Your task to perform on an android device: see creations saved in the google photos Image 0: 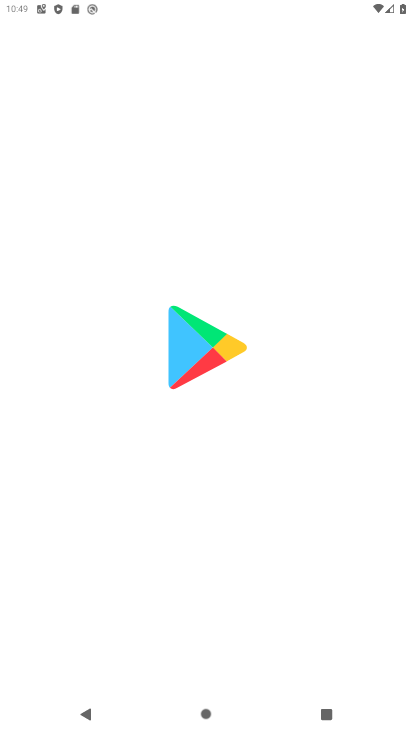
Step 0: press home button
Your task to perform on an android device: see creations saved in the google photos Image 1: 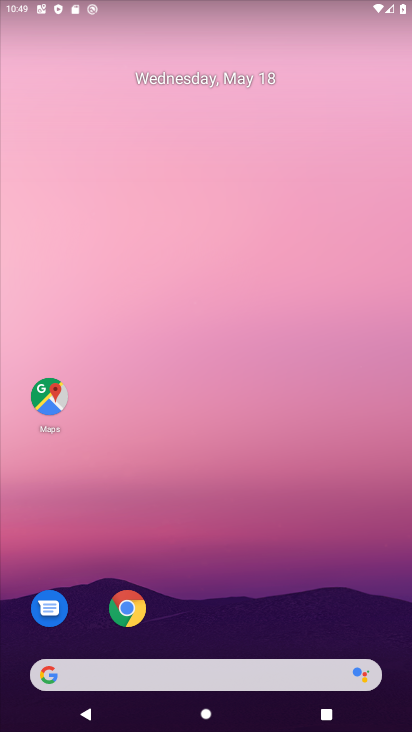
Step 1: drag from (273, 614) to (307, 197)
Your task to perform on an android device: see creations saved in the google photos Image 2: 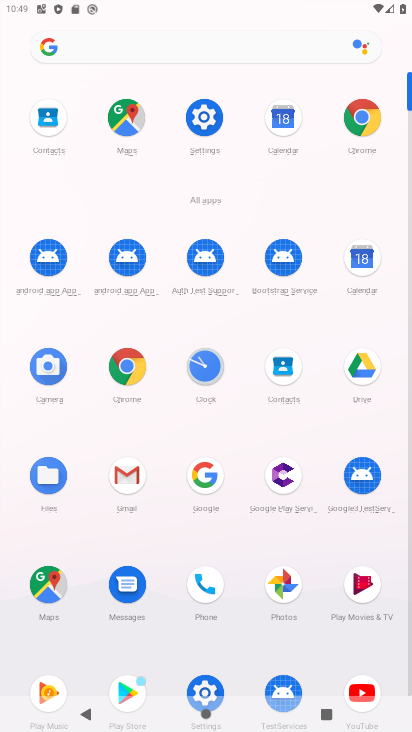
Step 2: click (285, 610)
Your task to perform on an android device: see creations saved in the google photos Image 3: 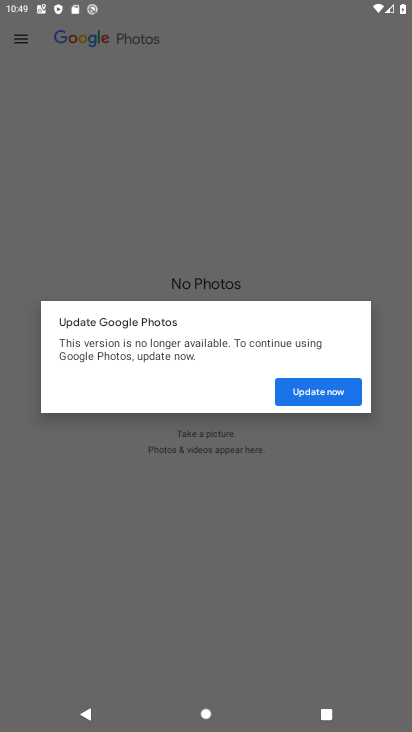
Step 3: click (321, 386)
Your task to perform on an android device: see creations saved in the google photos Image 4: 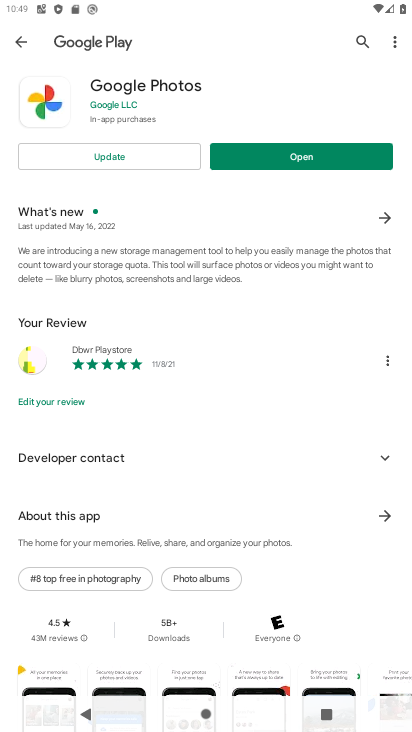
Step 4: click (133, 155)
Your task to perform on an android device: see creations saved in the google photos Image 5: 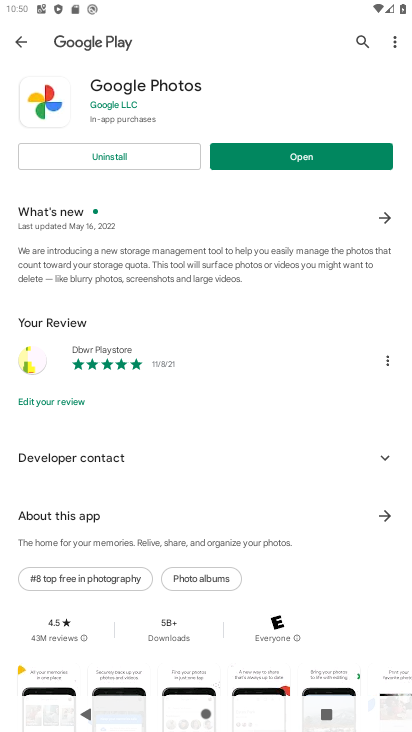
Step 5: click (364, 156)
Your task to perform on an android device: see creations saved in the google photos Image 6: 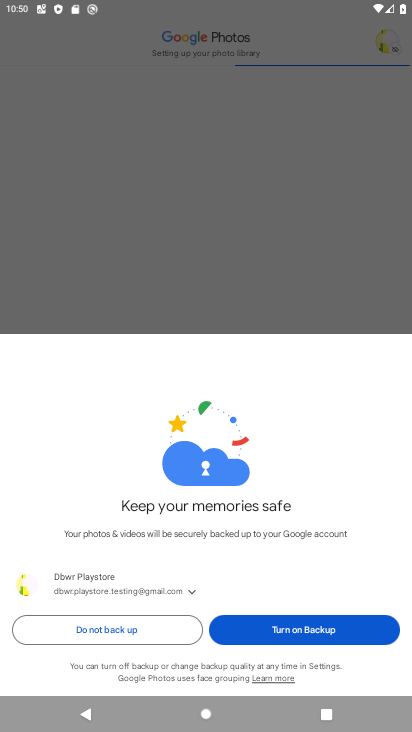
Step 6: click (338, 627)
Your task to perform on an android device: see creations saved in the google photos Image 7: 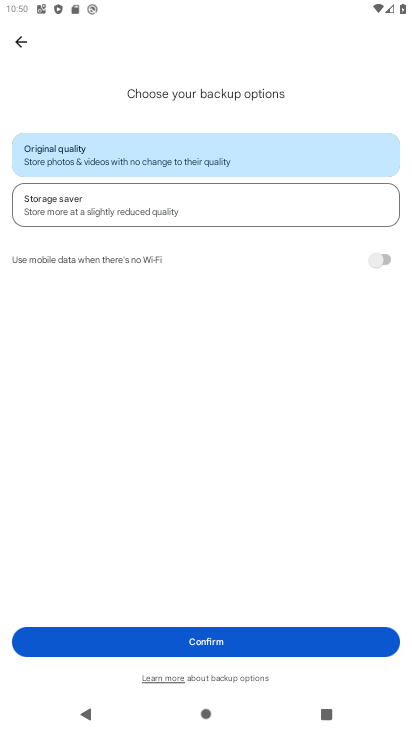
Step 7: click (263, 644)
Your task to perform on an android device: see creations saved in the google photos Image 8: 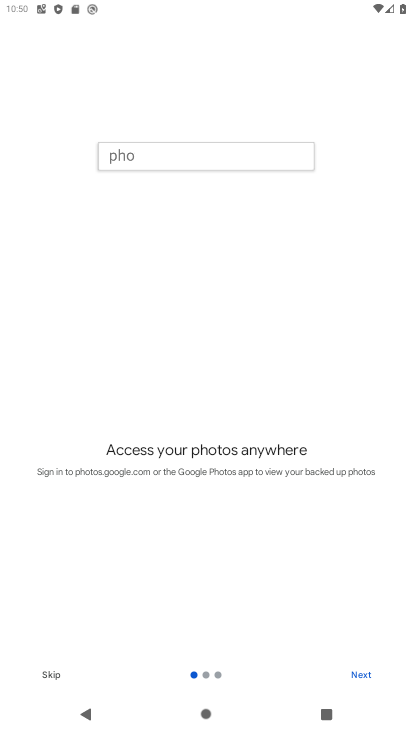
Step 8: click (263, 644)
Your task to perform on an android device: see creations saved in the google photos Image 9: 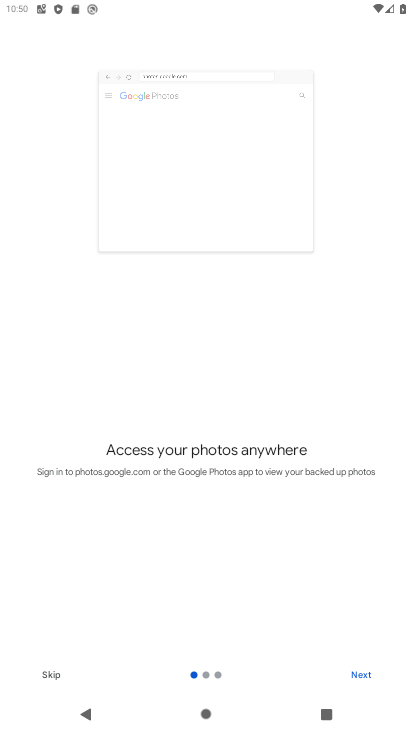
Step 9: click (365, 671)
Your task to perform on an android device: see creations saved in the google photos Image 10: 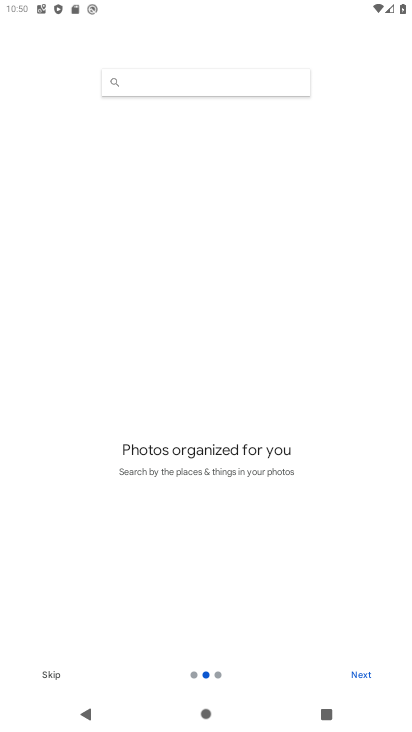
Step 10: click (365, 671)
Your task to perform on an android device: see creations saved in the google photos Image 11: 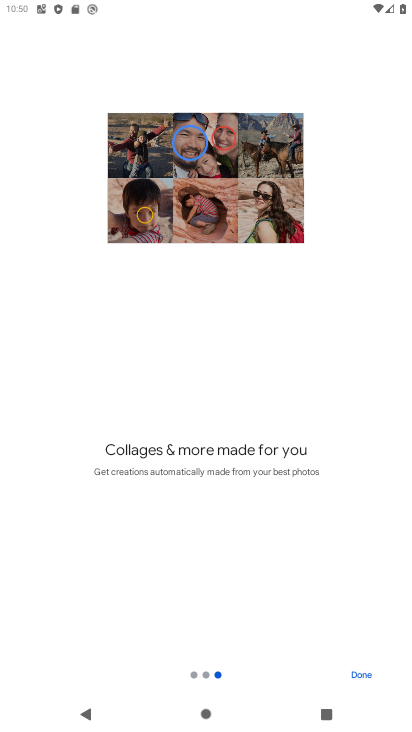
Step 11: click (365, 671)
Your task to perform on an android device: see creations saved in the google photos Image 12: 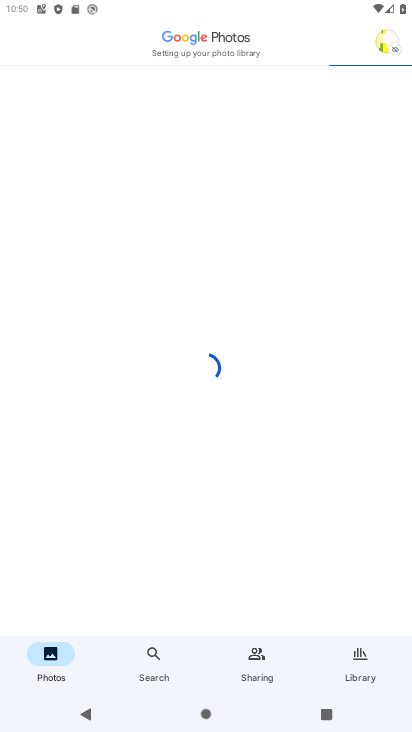
Step 12: click (365, 671)
Your task to perform on an android device: see creations saved in the google photos Image 13: 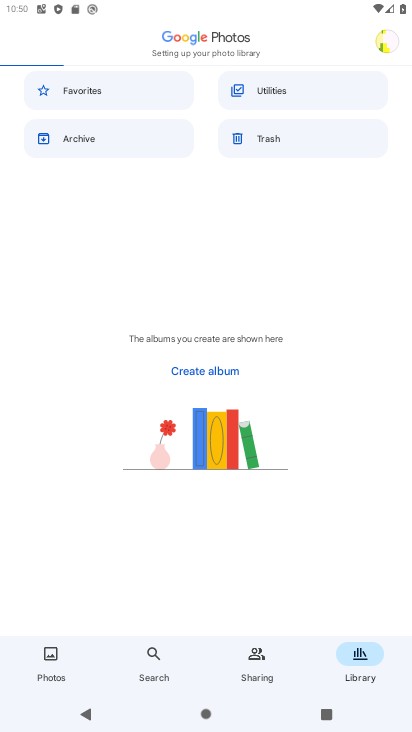
Step 13: click (158, 668)
Your task to perform on an android device: see creations saved in the google photos Image 14: 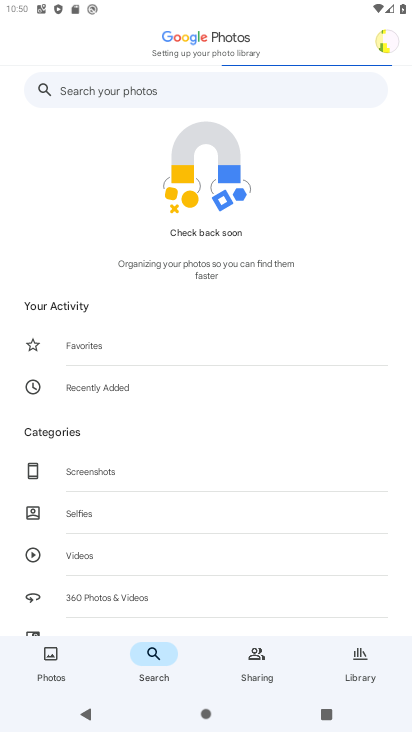
Step 14: drag from (162, 535) to (197, 109)
Your task to perform on an android device: see creations saved in the google photos Image 15: 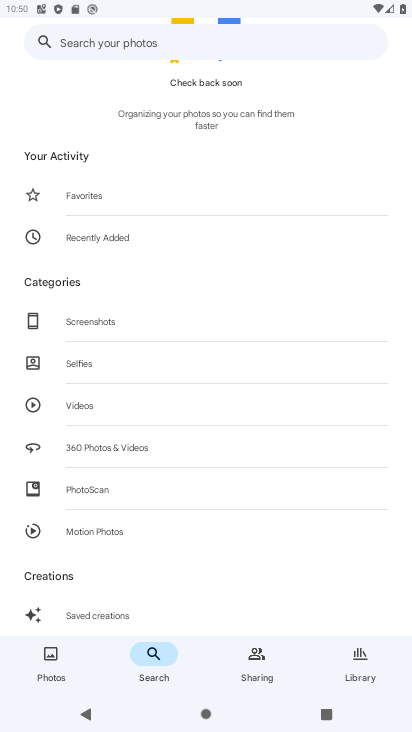
Step 15: click (112, 605)
Your task to perform on an android device: see creations saved in the google photos Image 16: 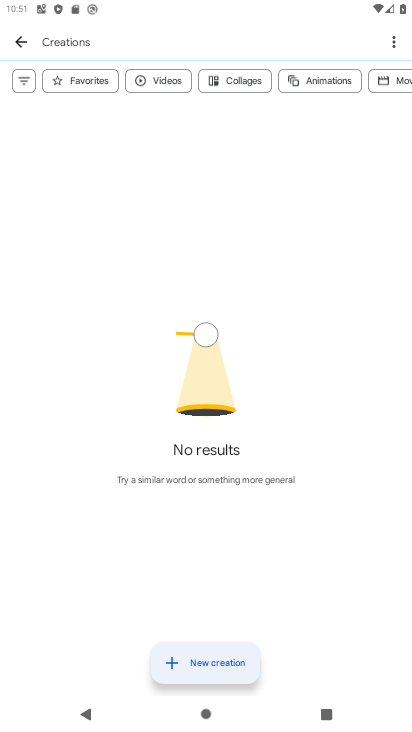
Step 16: task complete